Your task to perform on an android device: choose inbox layout in the gmail app Image 0: 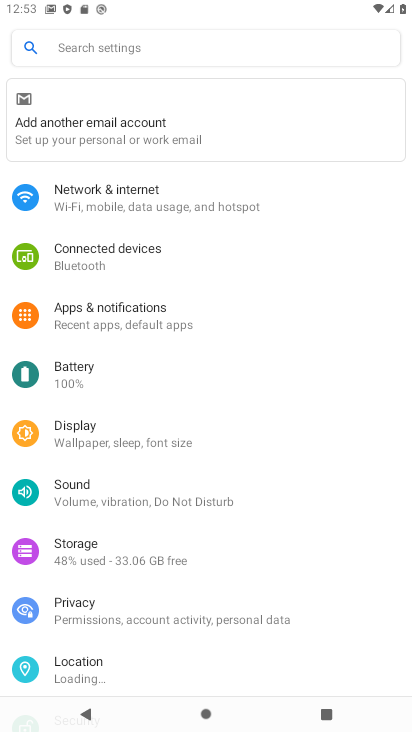
Step 0: press home button
Your task to perform on an android device: choose inbox layout in the gmail app Image 1: 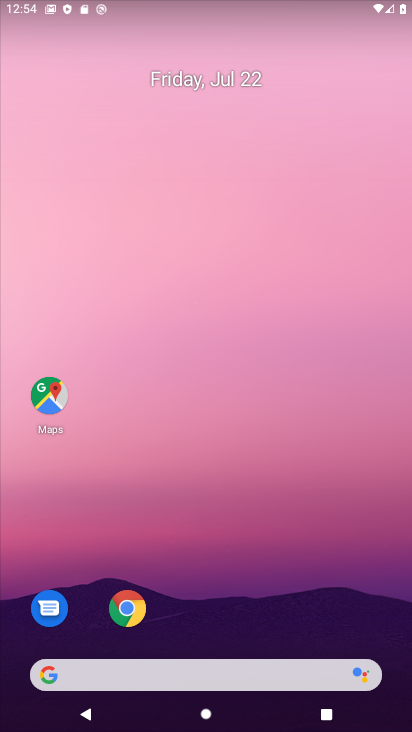
Step 1: drag from (304, 603) to (227, 13)
Your task to perform on an android device: choose inbox layout in the gmail app Image 2: 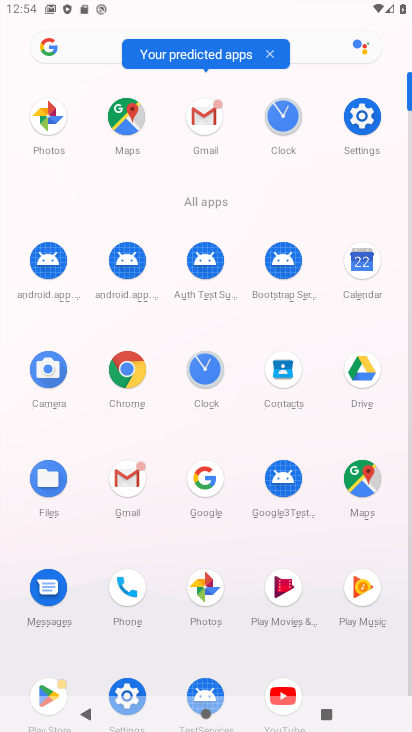
Step 2: click (205, 119)
Your task to perform on an android device: choose inbox layout in the gmail app Image 3: 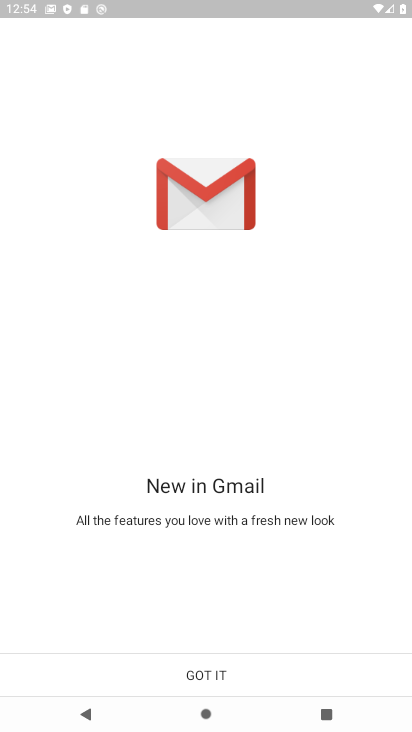
Step 3: click (247, 675)
Your task to perform on an android device: choose inbox layout in the gmail app Image 4: 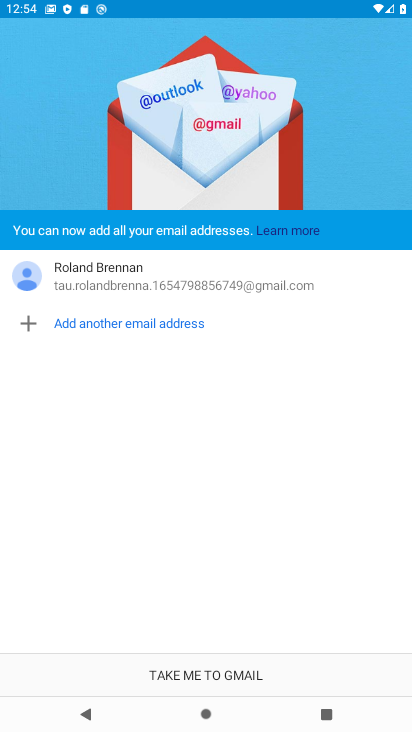
Step 4: click (230, 664)
Your task to perform on an android device: choose inbox layout in the gmail app Image 5: 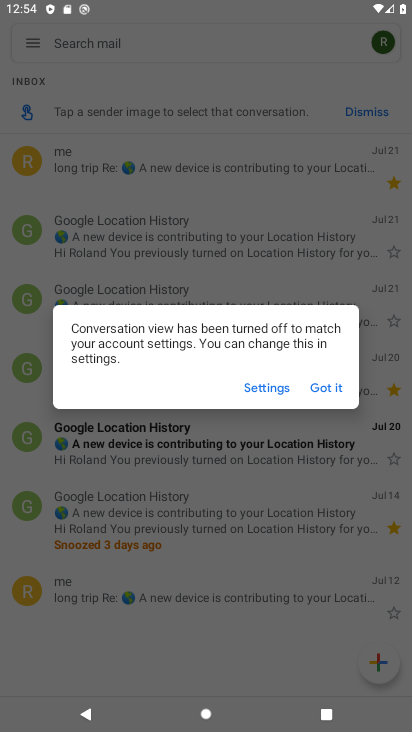
Step 5: click (338, 394)
Your task to perform on an android device: choose inbox layout in the gmail app Image 6: 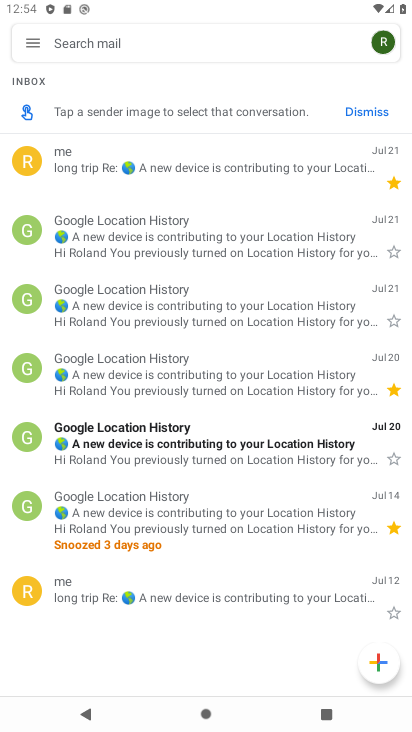
Step 6: click (37, 45)
Your task to perform on an android device: choose inbox layout in the gmail app Image 7: 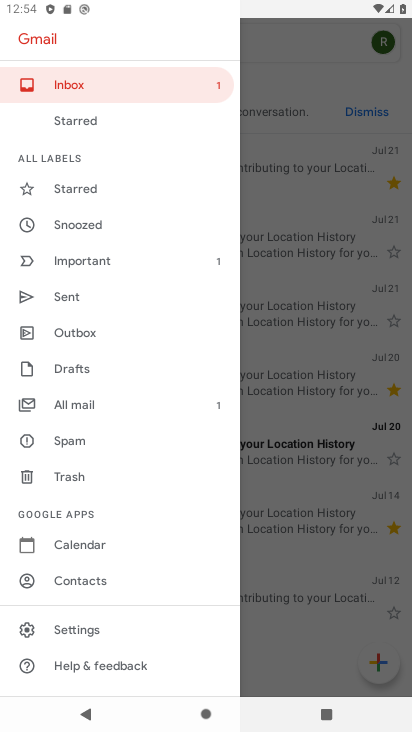
Step 7: click (91, 618)
Your task to perform on an android device: choose inbox layout in the gmail app Image 8: 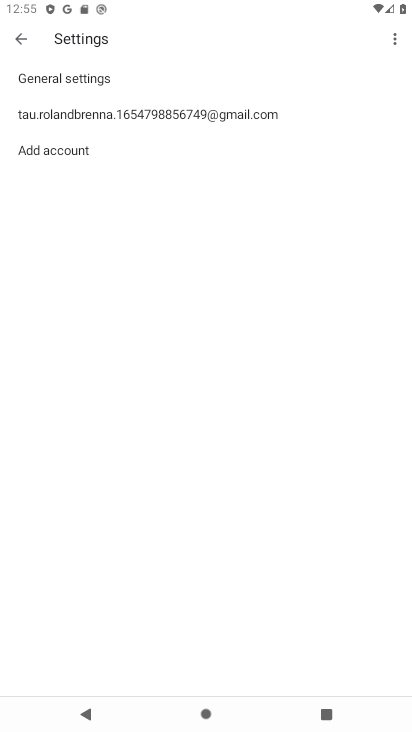
Step 8: click (162, 108)
Your task to perform on an android device: choose inbox layout in the gmail app Image 9: 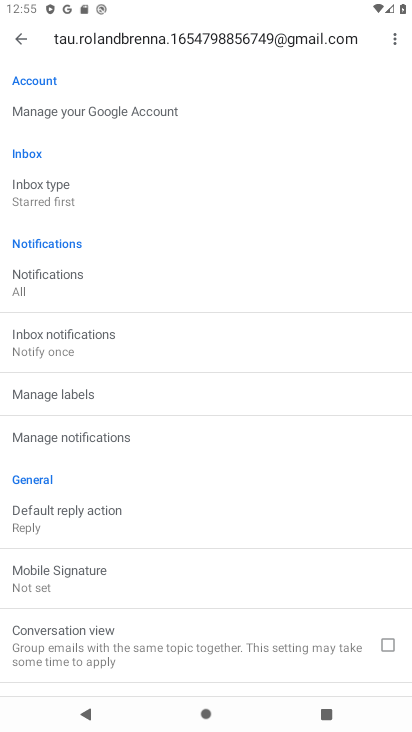
Step 9: click (82, 185)
Your task to perform on an android device: choose inbox layout in the gmail app Image 10: 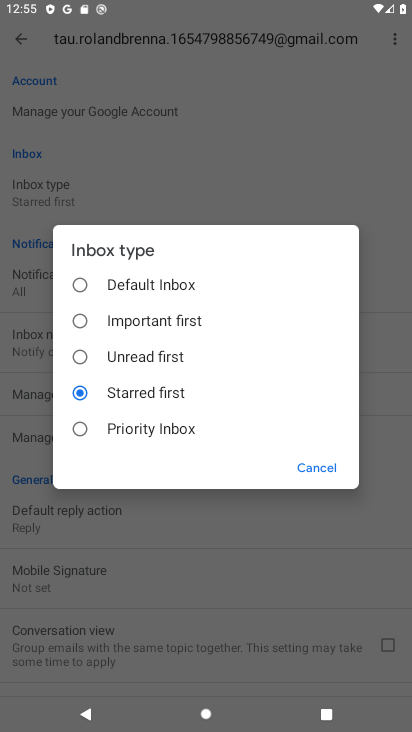
Step 10: click (167, 430)
Your task to perform on an android device: choose inbox layout in the gmail app Image 11: 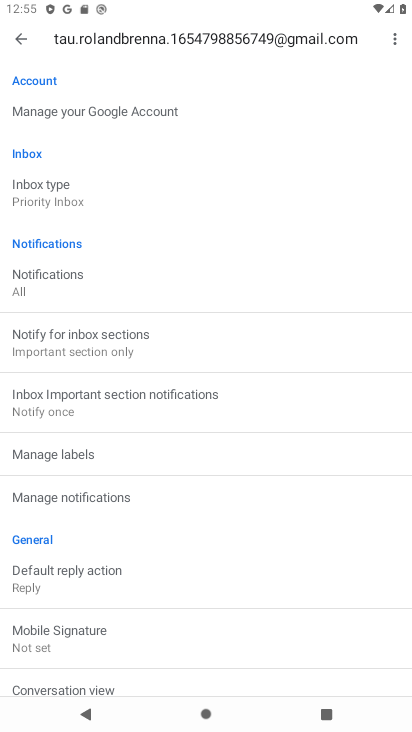
Step 11: task complete